Your task to perform on an android device: Open Google Image 0: 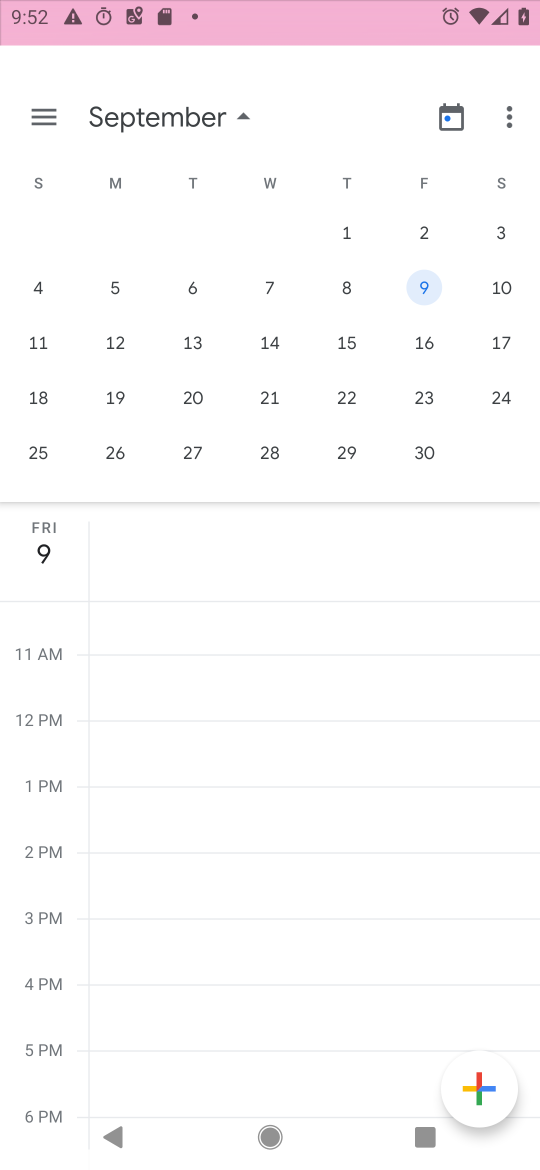
Step 0: drag from (257, 926) to (329, 77)
Your task to perform on an android device: Open Google Image 1: 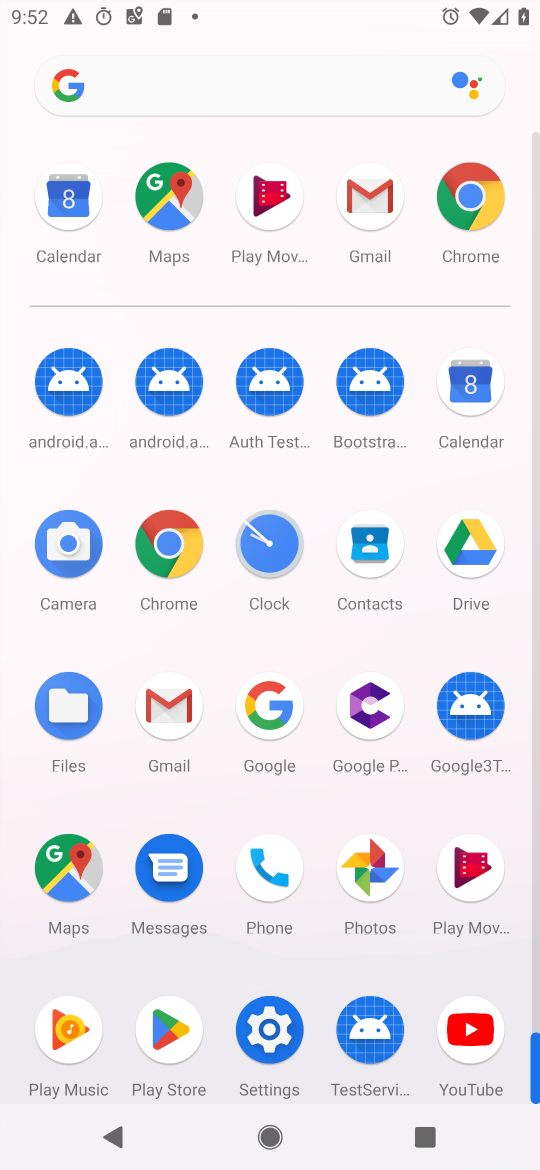
Step 1: click (261, 694)
Your task to perform on an android device: Open Google Image 2: 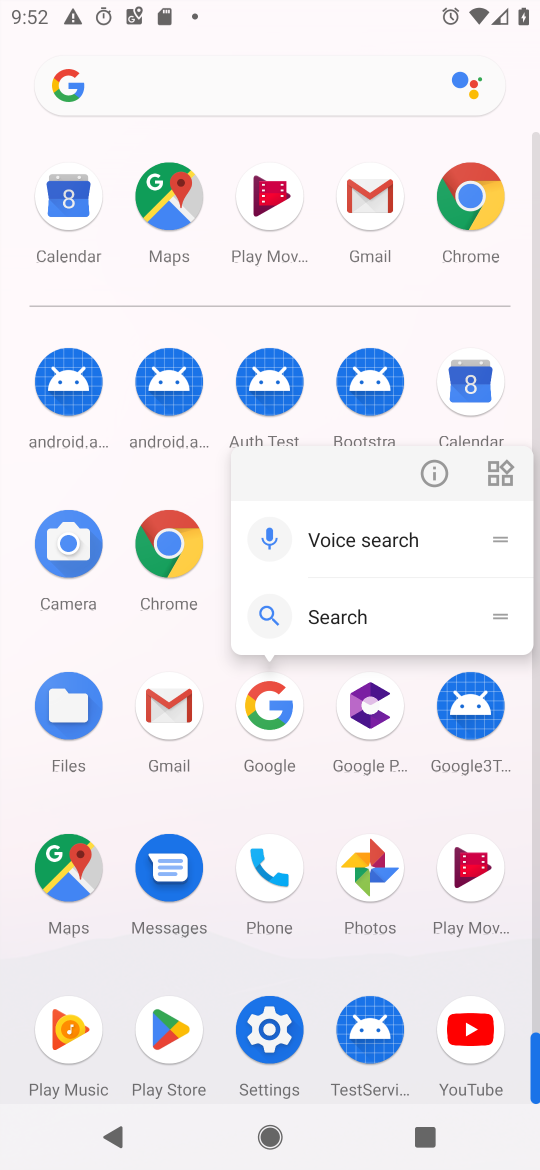
Step 2: click (443, 457)
Your task to perform on an android device: Open Google Image 3: 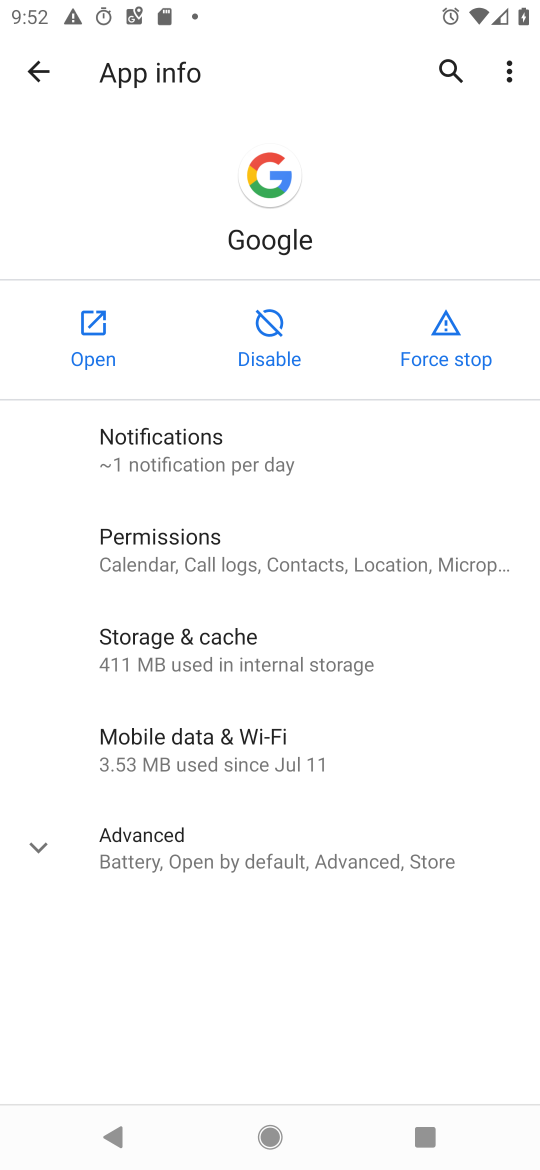
Step 3: click (92, 342)
Your task to perform on an android device: Open Google Image 4: 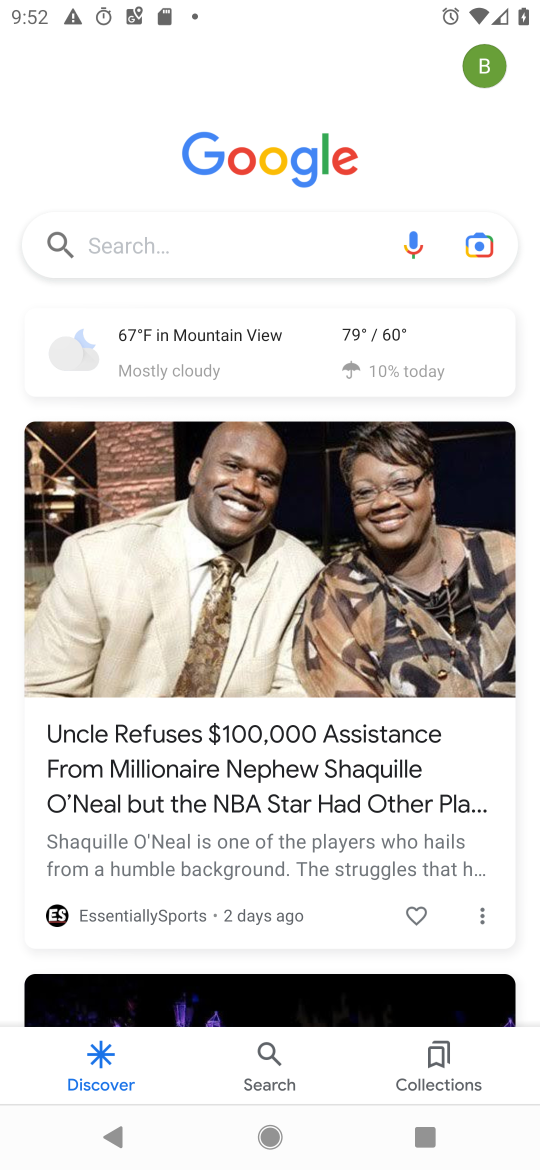
Step 4: task complete